Your task to perform on an android device: Go to CNN.com Image 0: 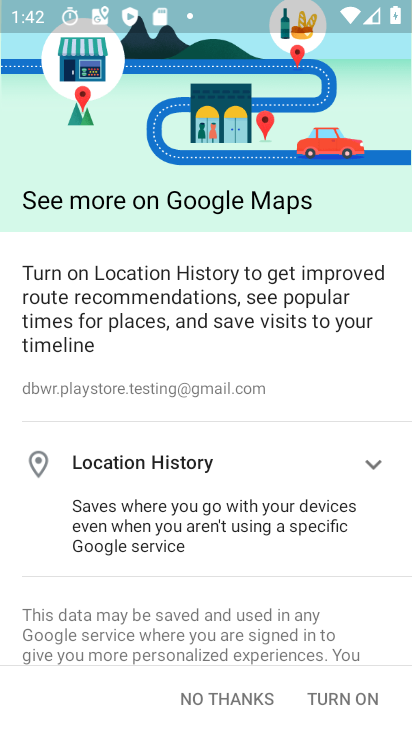
Step 0: press home button
Your task to perform on an android device: Go to CNN.com Image 1: 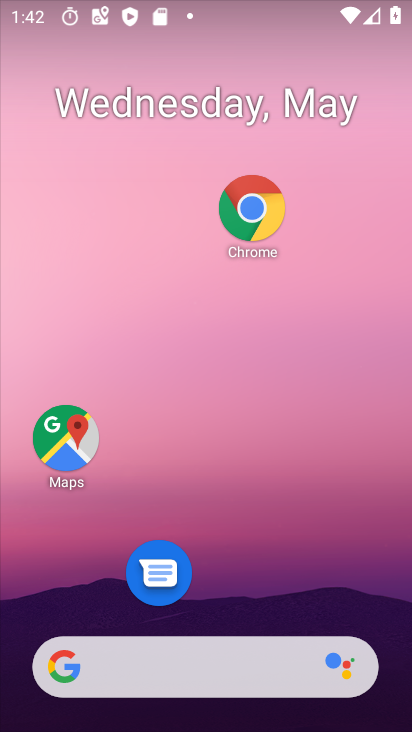
Step 1: click (173, 663)
Your task to perform on an android device: Go to CNN.com Image 2: 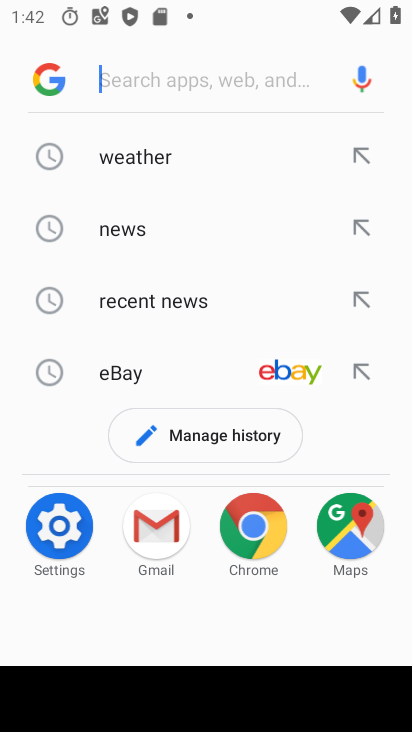
Step 2: type "cnn.com"
Your task to perform on an android device: Go to CNN.com Image 3: 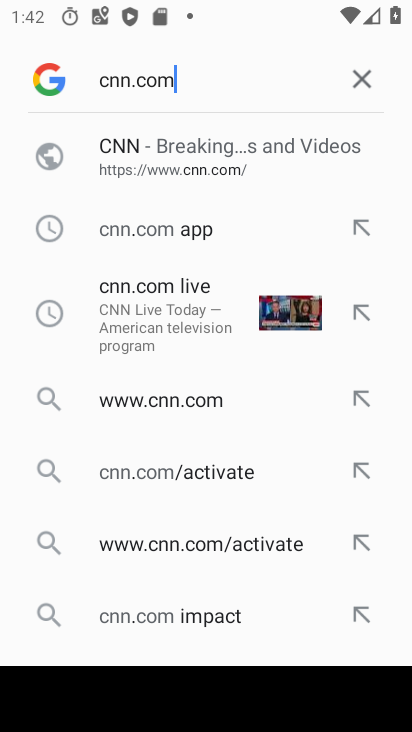
Step 3: click (217, 162)
Your task to perform on an android device: Go to CNN.com Image 4: 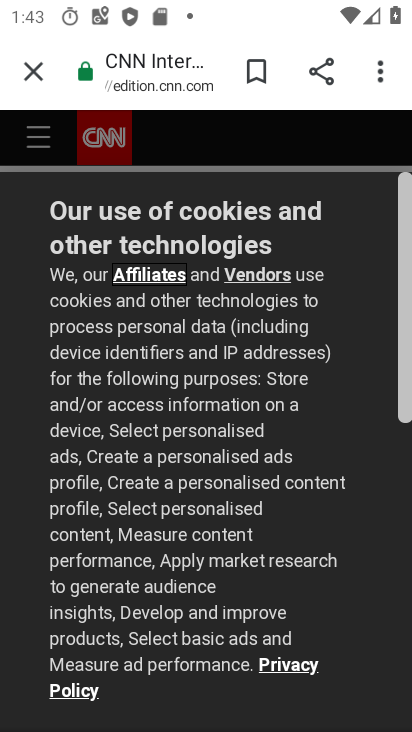
Step 4: task complete